Your task to perform on an android device: open a new tab in the chrome app Image 0: 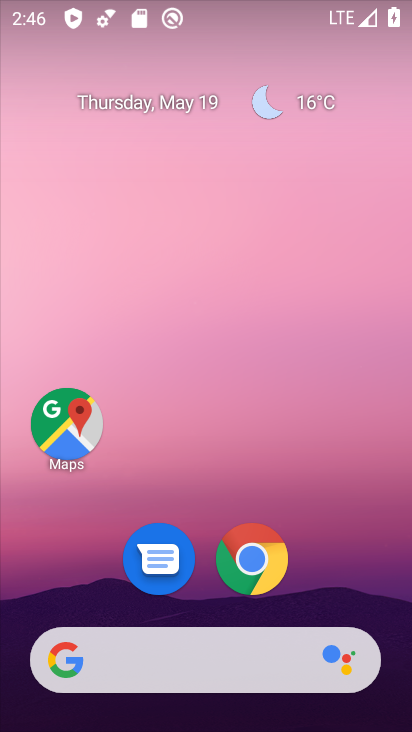
Step 0: click (245, 559)
Your task to perform on an android device: open a new tab in the chrome app Image 1: 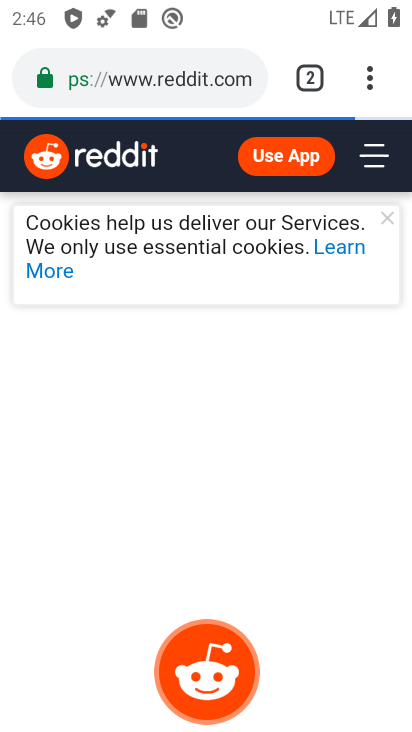
Step 1: click (301, 81)
Your task to perform on an android device: open a new tab in the chrome app Image 2: 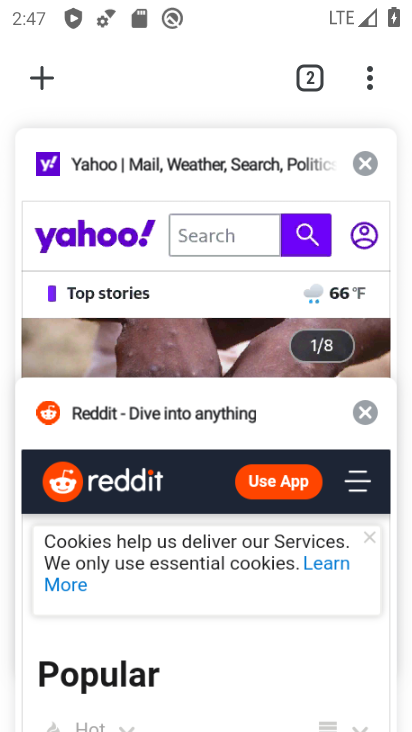
Step 2: click (39, 81)
Your task to perform on an android device: open a new tab in the chrome app Image 3: 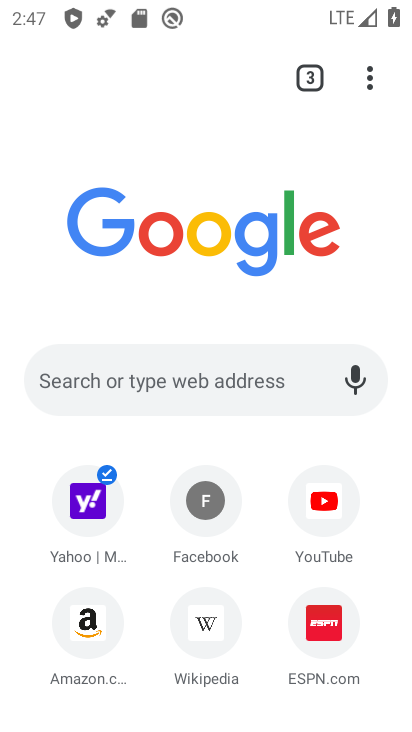
Step 3: task complete